Your task to perform on an android device: choose inbox layout in the gmail app Image 0: 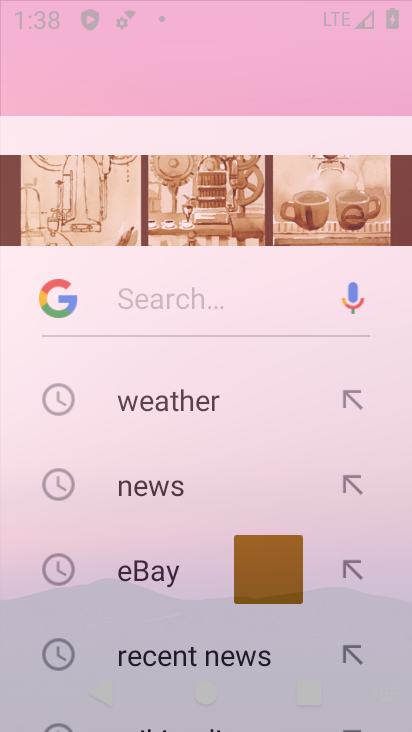
Step 0: press home button
Your task to perform on an android device: choose inbox layout in the gmail app Image 1: 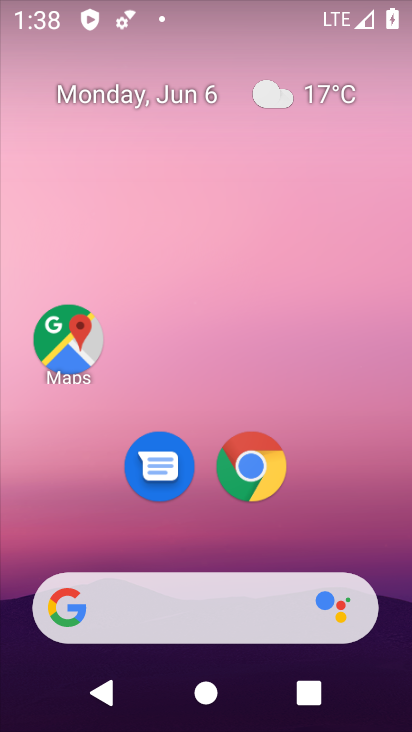
Step 1: drag from (198, 548) to (213, 100)
Your task to perform on an android device: choose inbox layout in the gmail app Image 2: 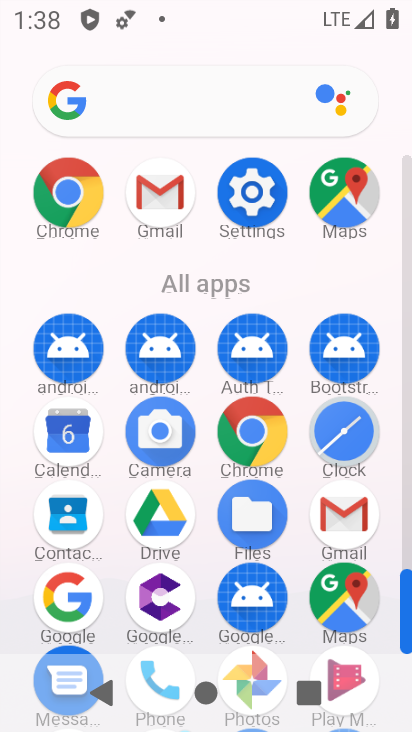
Step 2: click (151, 183)
Your task to perform on an android device: choose inbox layout in the gmail app Image 3: 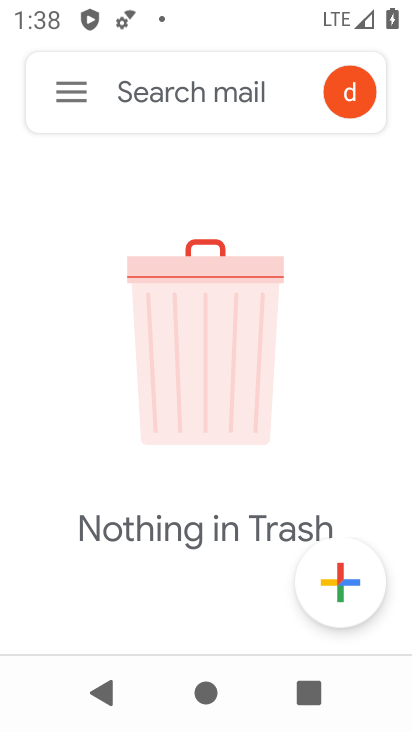
Step 3: click (67, 104)
Your task to perform on an android device: choose inbox layout in the gmail app Image 4: 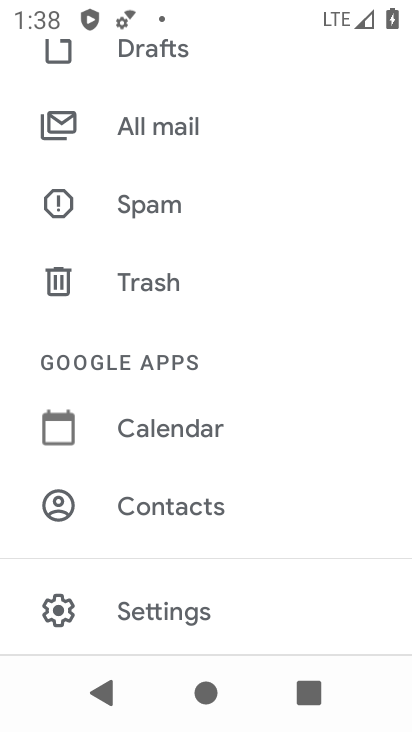
Step 4: click (159, 606)
Your task to perform on an android device: choose inbox layout in the gmail app Image 5: 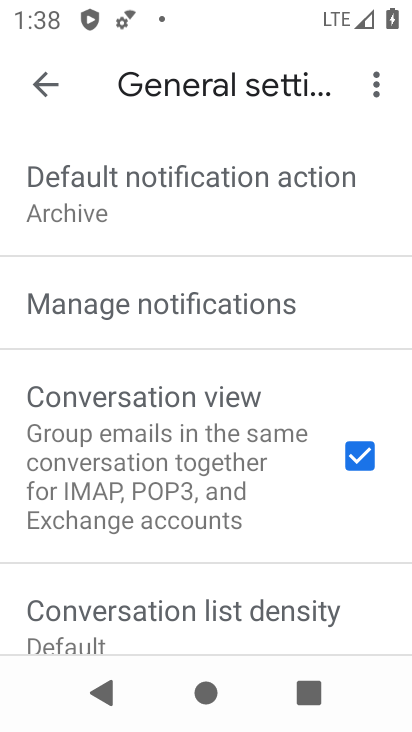
Step 5: drag from (371, 580) to (316, 152)
Your task to perform on an android device: choose inbox layout in the gmail app Image 6: 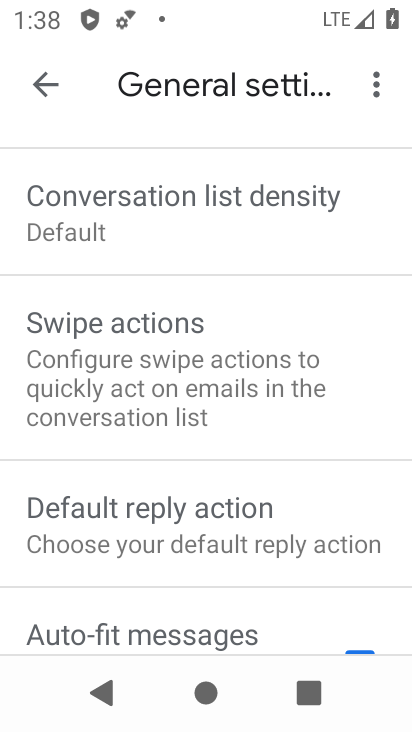
Step 6: drag from (333, 573) to (287, 106)
Your task to perform on an android device: choose inbox layout in the gmail app Image 7: 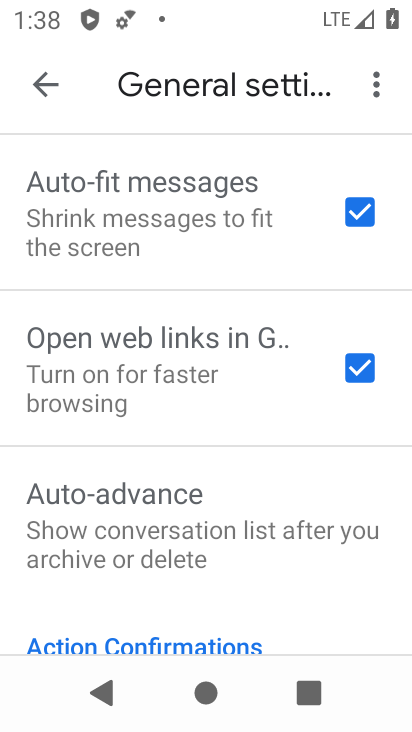
Step 7: click (43, 86)
Your task to perform on an android device: choose inbox layout in the gmail app Image 8: 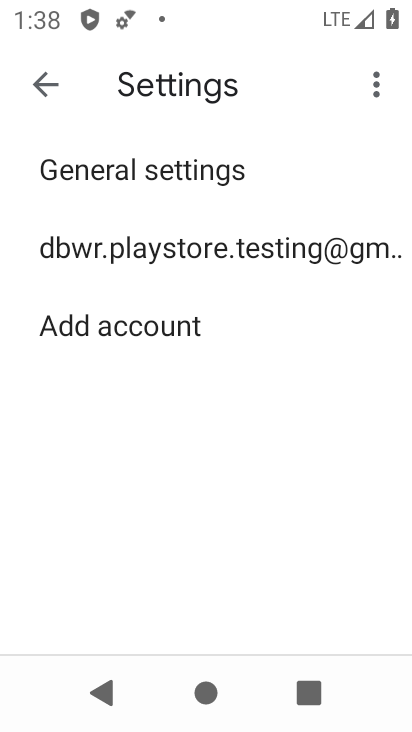
Step 8: click (150, 253)
Your task to perform on an android device: choose inbox layout in the gmail app Image 9: 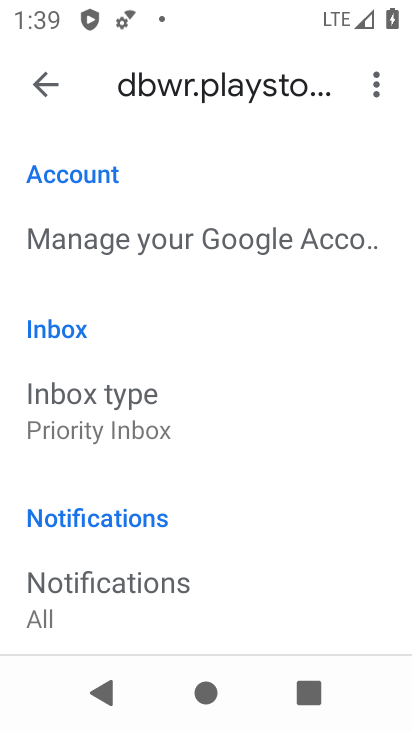
Step 9: task complete